Your task to perform on an android device: Open the calendar app, open the side menu, and click the "Day" option Image 0: 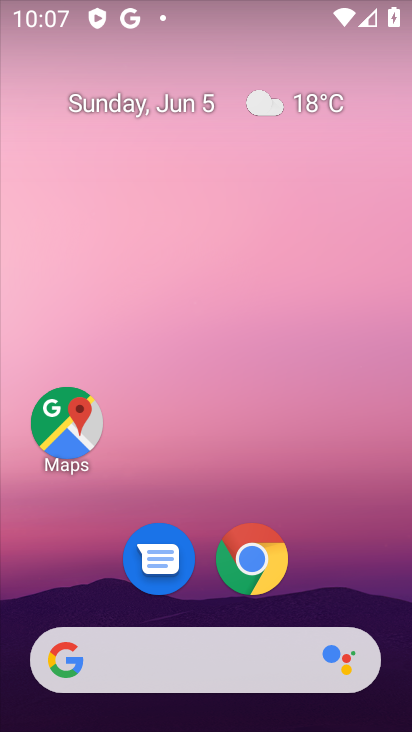
Step 0: drag from (385, 686) to (347, 225)
Your task to perform on an android device: Open the calendar app, open the side menu, and click the "Day" option Image 1: 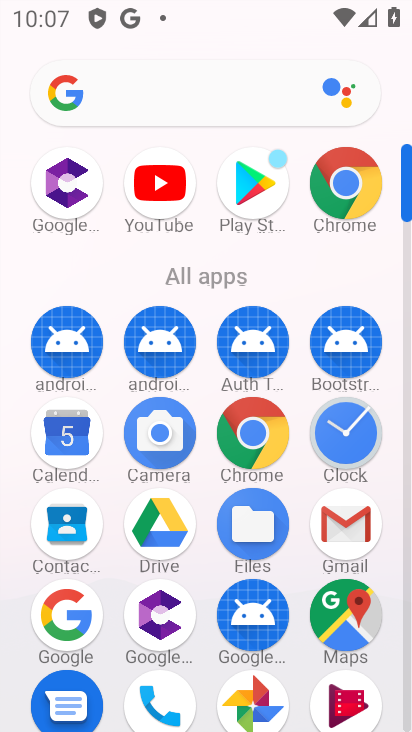
Step 1: click (73, 447)
Your task to perform on an android device: Open the calendar app, open the side menu, and click the "Day" option Image 2: 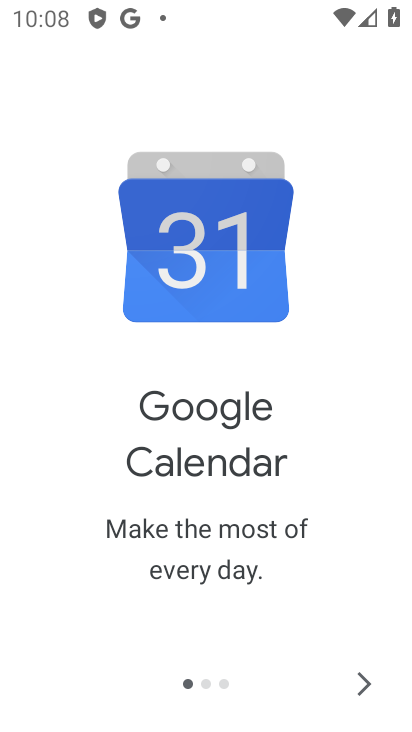
Step 2: click (365, 674)
Your task to perform on an android device: Open the calendar app, open the side menu, and click the "Day" option Image 3: 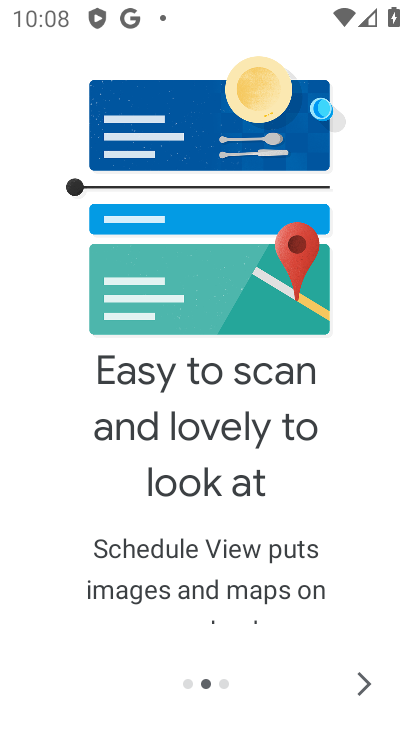
Step 3: click (365, 674)
Your task to perform on an android device: Open the calendar app, open the side menu, and click the "Day" option Image 4: 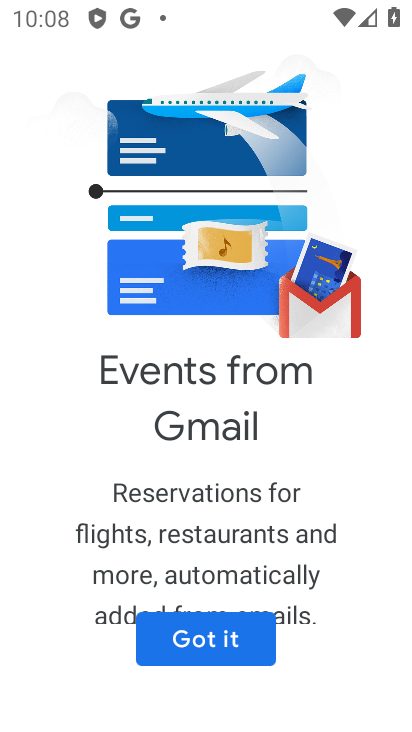
Step 4: click (232, 616)
Your task to perform on an android device: Open the calendar app, open the side menu, and click the "Day" option Image 5: 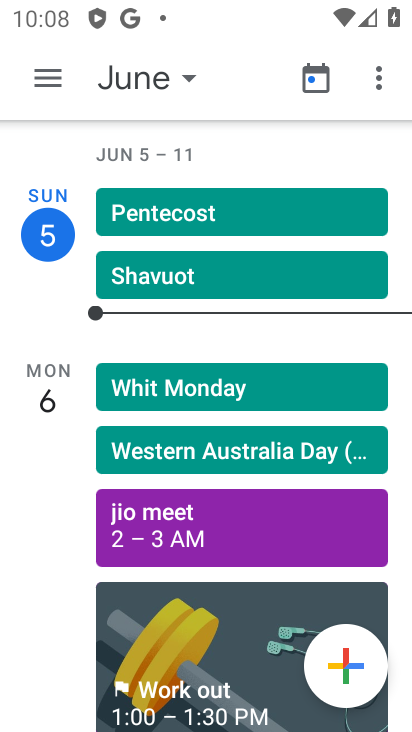
Step 5: click (53, 70)
Your task to perform on an android device: Open the calendar app, open the side menu, and click the "Day" option Image 6: 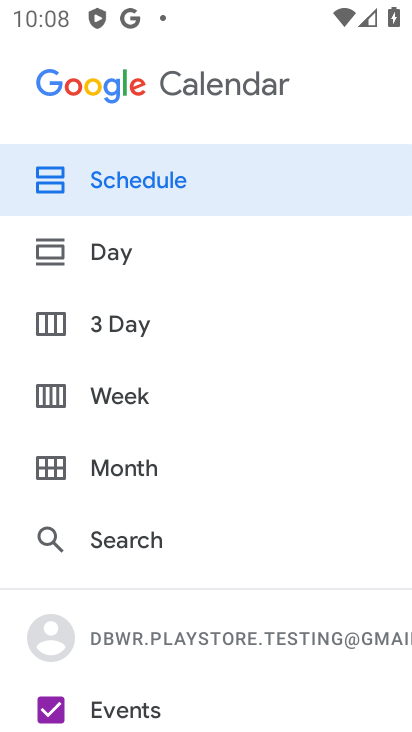
Step 6: click (75, 257)
Your task to perform on an android device: Open the calendar app, open the side menu, and click the "Day" option Image 7: 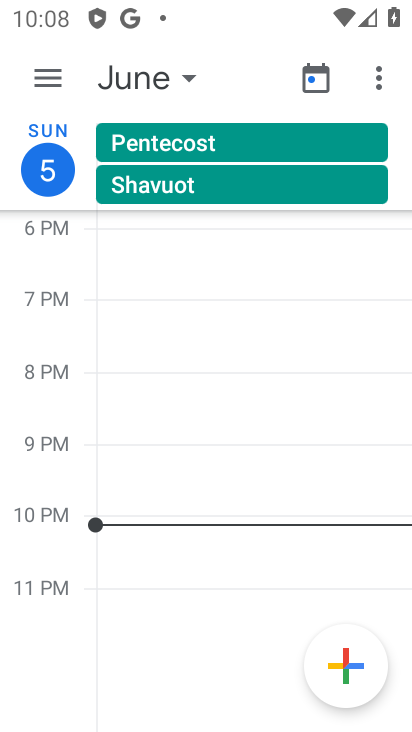
Step 7: task complete